Your task to perform on an android device: Go to calendar. Show me events next week Image 0: 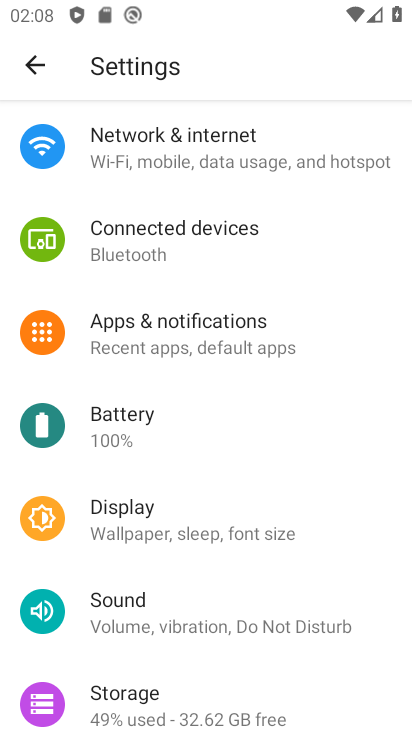
Step 0: press home button
Your task to perform on an android device: Go to calendar. Show me events next week Image 1: 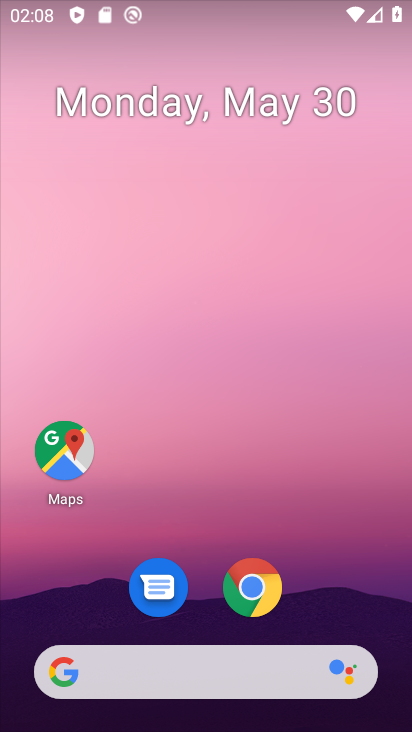
Step 1: drag from (147, 713) to (172, 33)
Your task to perform on an android device: Go to calendar. Show me events next week Image 2: 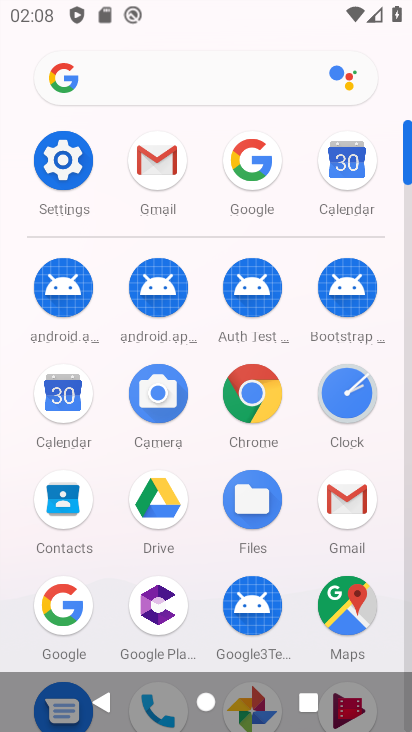
Step 2: click (325, 161)
Your task to perform on an android device: Go to calendar. Show me events next week Image 3: 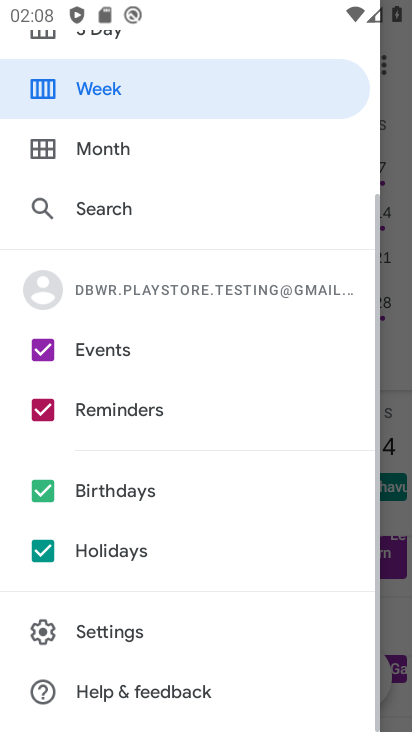
Step 3: drag from (188, 225) to (157, 655)
Your task to perform on an android device: Go to calendar. Show me events next week Image 4: 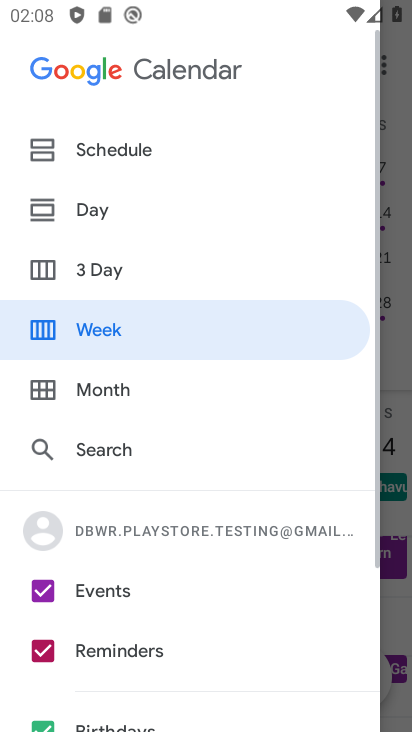
Step 4: click (398, 152)
Your task to perform on an android device: Go to calendar. Show me events next week Image 5: 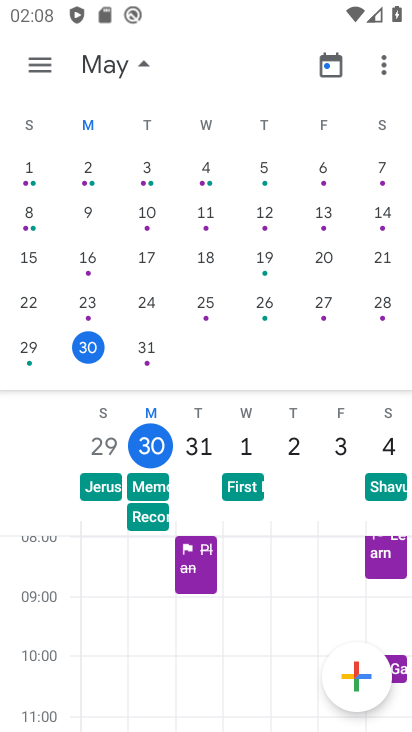
Step 5: drag from (372, 346) to (6, 325)
Your task to perform on an android device: Go to calendar. Show me events next week Image 6: 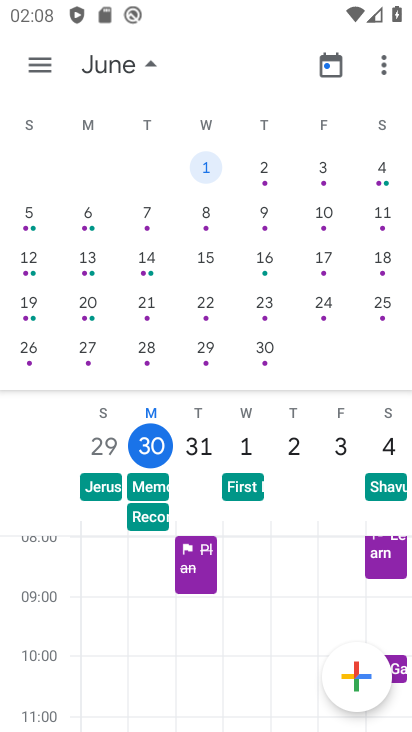
Step 6: click (209, 165)
Your task to perform on an android device: Go to calendar. Show me events next week Image 7: 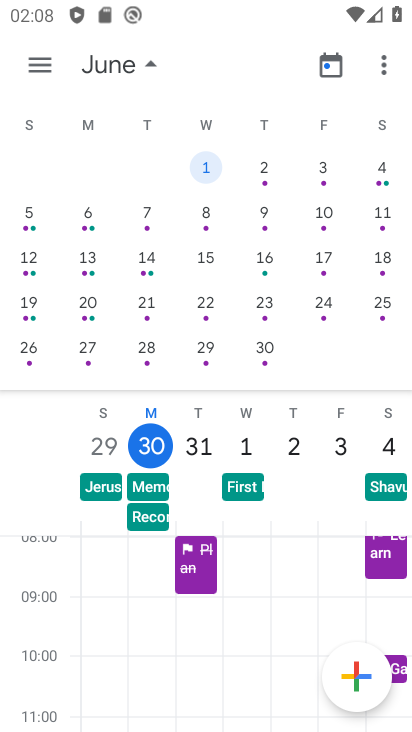
Step 7: click (146, 58)
Your task to perform on an android device: Go to calendar. Show me events next week Image 8: 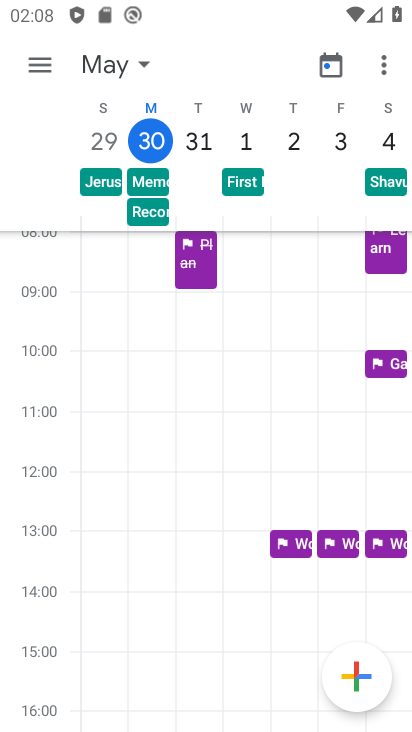
Step 8: click (41, 59)
Your task to perform on an android device: Go to calendar. Show me events next week Image 9: 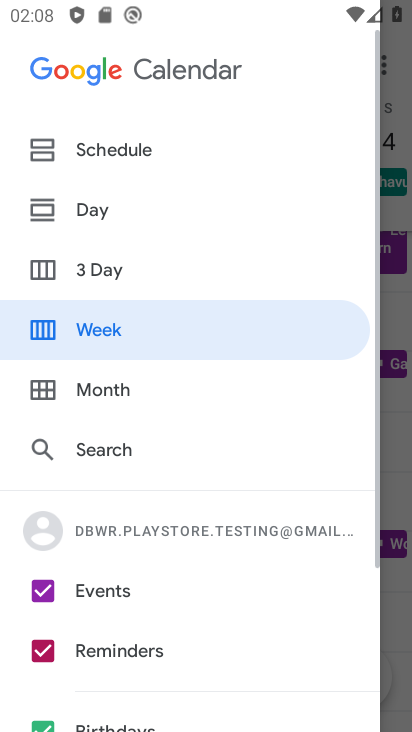
Step 9: click (38, 653)
Your task to perform on an android device: Go to calendar. Show me events next week Image 10: 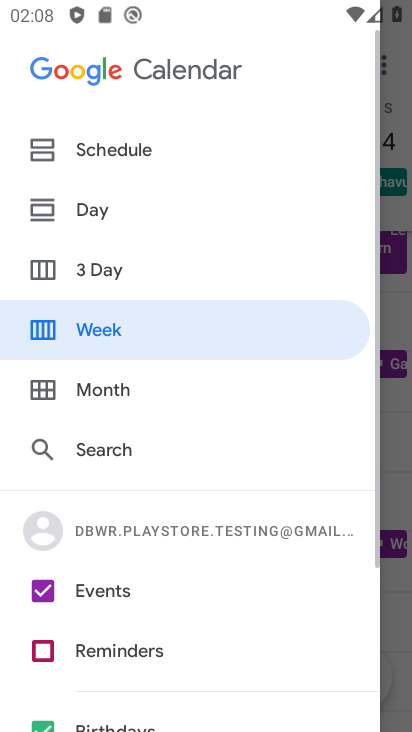
Step 10: drag from (259, 640) to (232, 173)
Your task to perform on an android device: Go to calendar. Show me events next week Image 11: 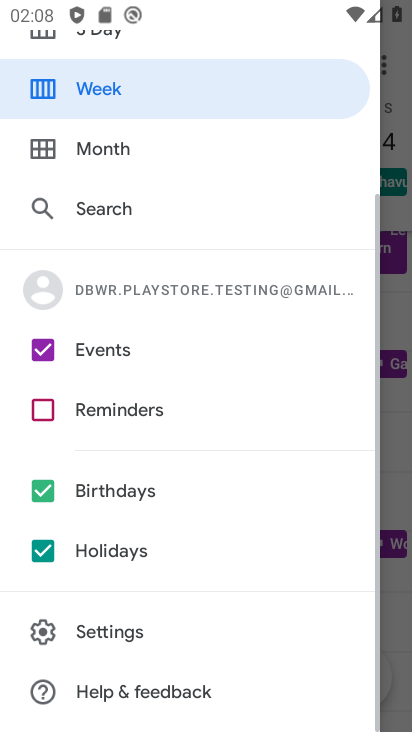
Step 11: click (45, 489)
Your task to perform on an android device: Go to calendar. Show me events next week Image 12: 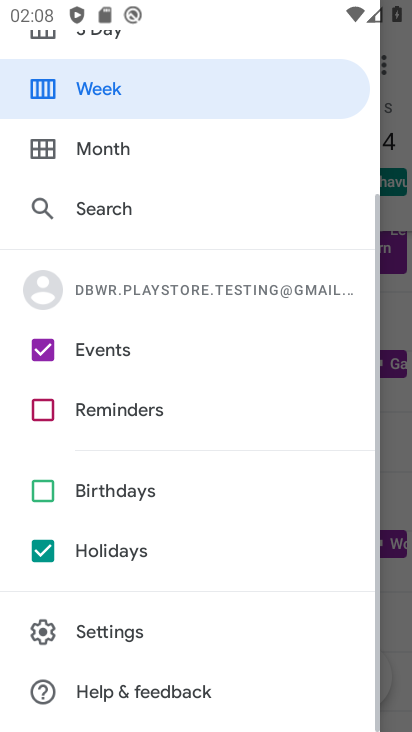
Step 12: click (43, 556)
Your task to perform on an android device: Go to calendar. Show me events next week Image 13: 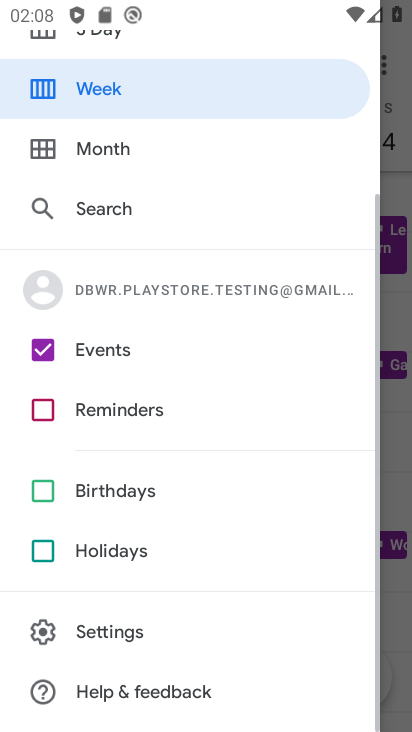
Step 13: click (399, 147)
Your task to perform on an android device: Go to calendar. Show me events next week Image 14: 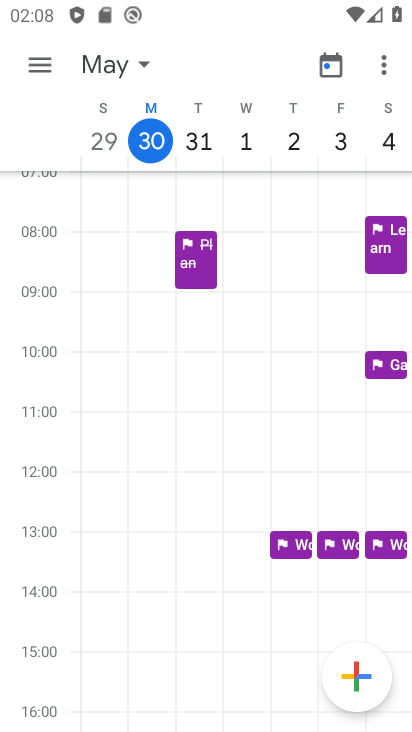
Step 14: task complete